Your task to perform on an android device: Do I have any events today? Image 0: 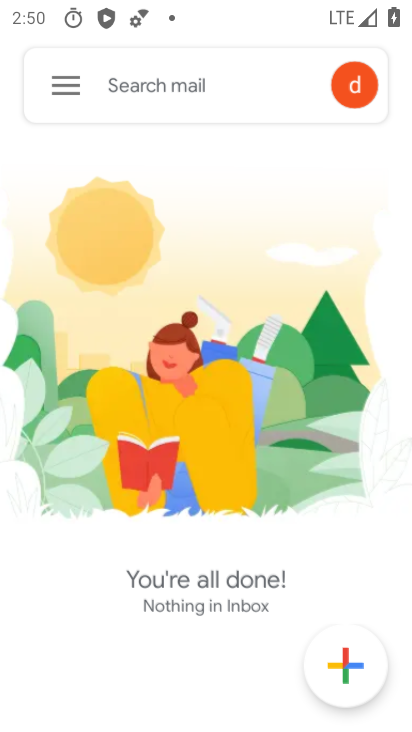
Step 0: click (279, 549)
Your task to perform on an android device: Do I have any events today? Image 1: 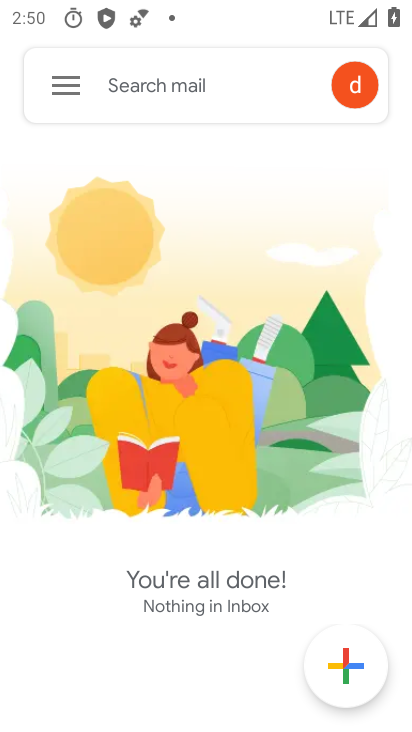
Step 1: press home button
Your task to perform on an android device: Do I have any events today? Image 2: 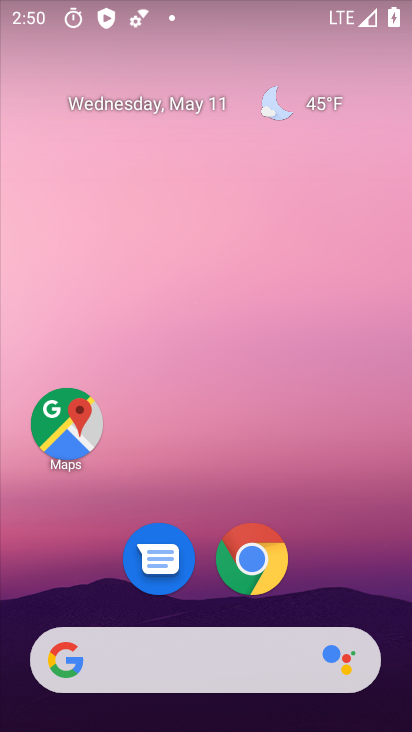
Step 2: click (145, 102)
Your task to perform on an android device: Do I have any events today? Image 3: 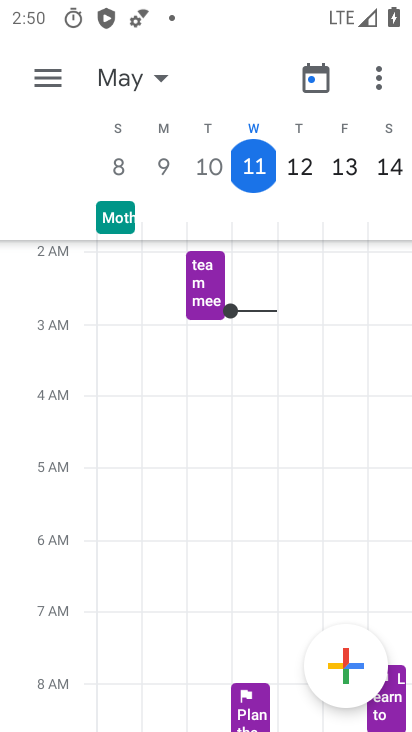
Step 3: task complete